Your task to perform on an android device: Go to Maps Image 0: 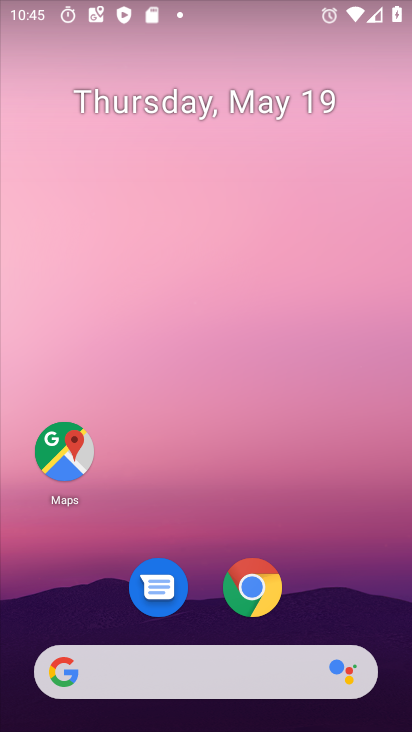
Step 0: drag from (351, 576) to (340, 167)
Your task to perform on an android device: Go to Maps Image 1: 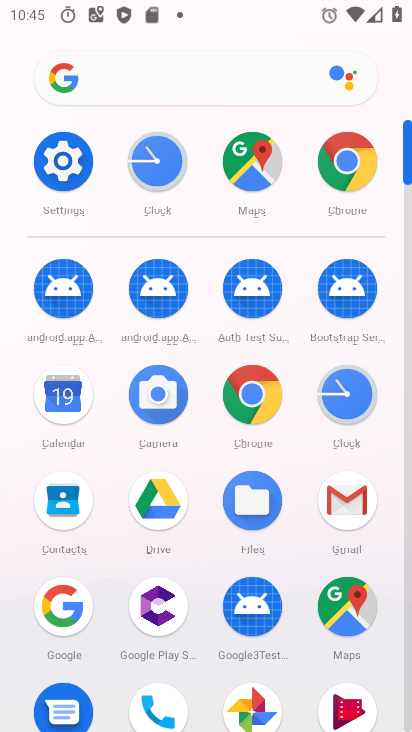
Step 1: click (347, 604)
Your task to perform on an android device: Go to Maps Image 2: 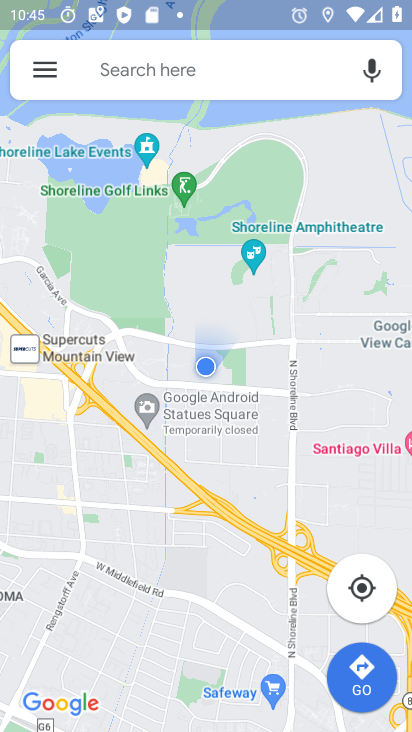
Step 2: task complete